Your task to perform on an android device: change the clock display to digital Image 0: 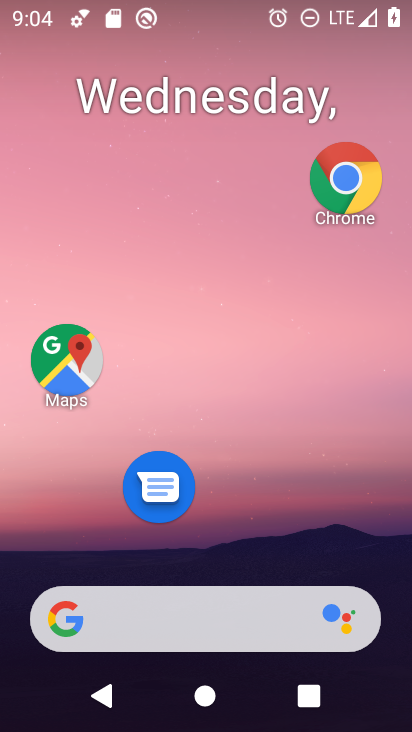
Step 0: drag from (248, 653) to (258, 105)
Your task to perform on an android device: change the clock display to digital Image 1: 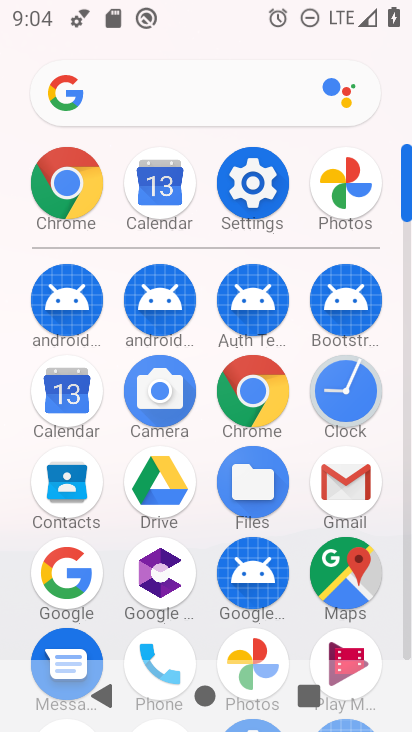
Step 1: click (356, 434)
Your task to perform on an android device: change the clock display to digital Image 2: 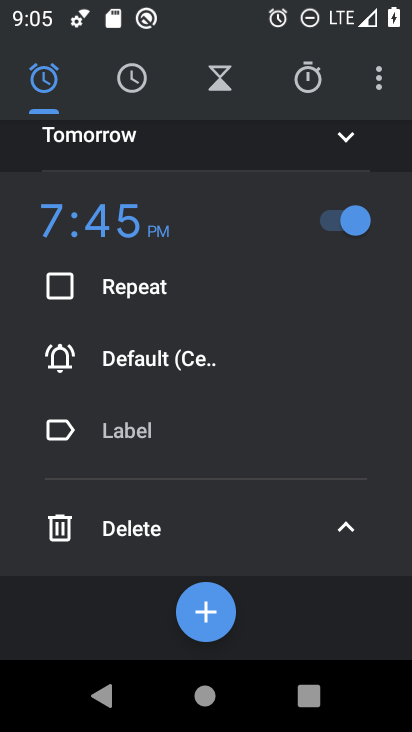
Step 2: click (381, 92)
Your task to perform on an android device: change the clock display to digital Image 3: 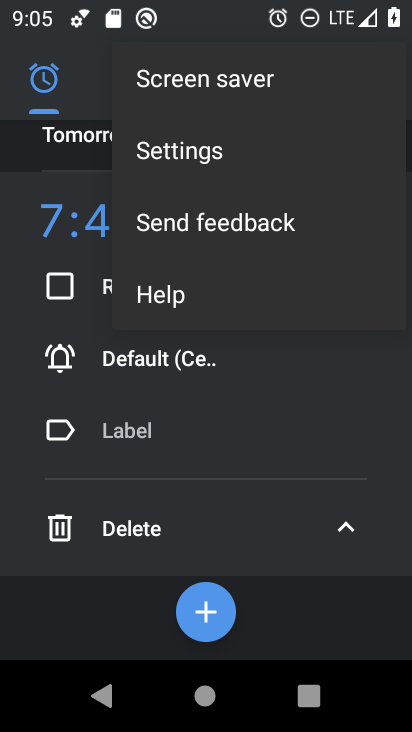
Step 3: click (193, 161)
Your task to perform on an android device: change the clock display to digital Image 4: 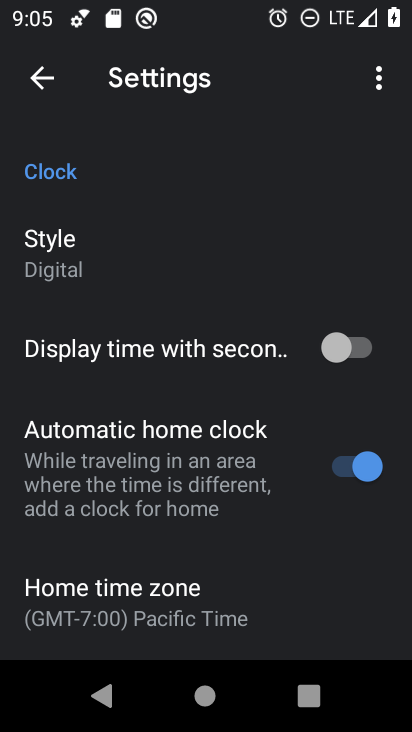
Step 4: task complete